Your task to perform on an android device: Open Google Chrome Image 0: 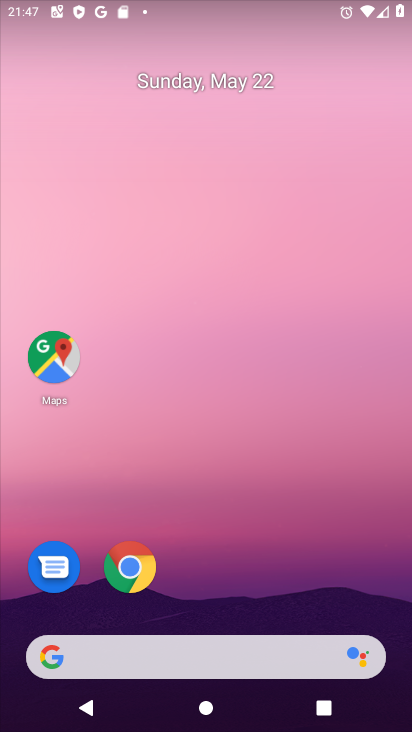
Step 0: click (130, 566)
Your task to perform on an android device: Open Google Chrome Image 1: 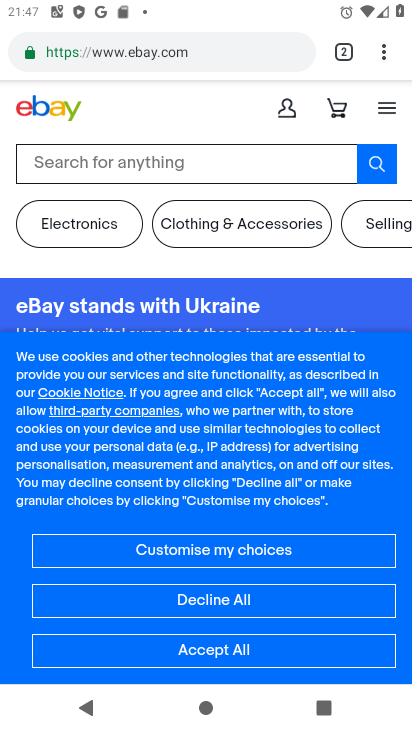
Step 1: task complete